Your task to perform on an android device: Check the weather Image 0: 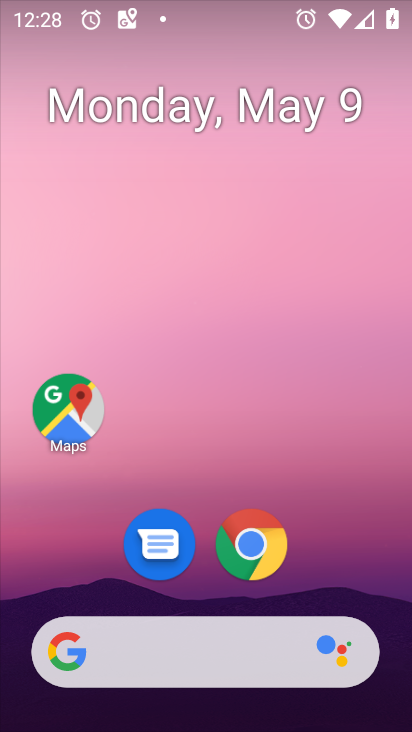
Step 0: drag from (22, 265) to (402, 235)
Your task to perform on an android device: Check the weather Image 1: 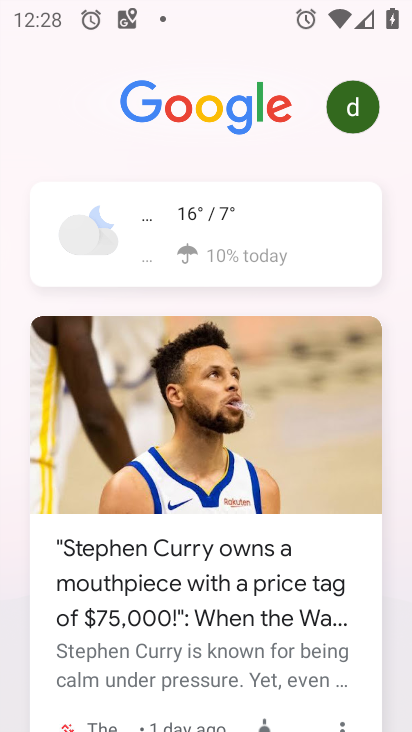
Step 1: click (73, 226)
Your task to perform on an android device: Check the weather Image 2: 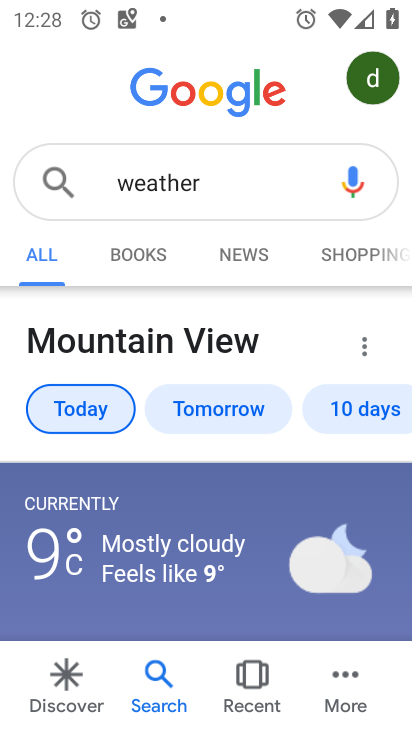
Step 2: task complete